Your task to perform on an android device: Open wifi settings Image 0: 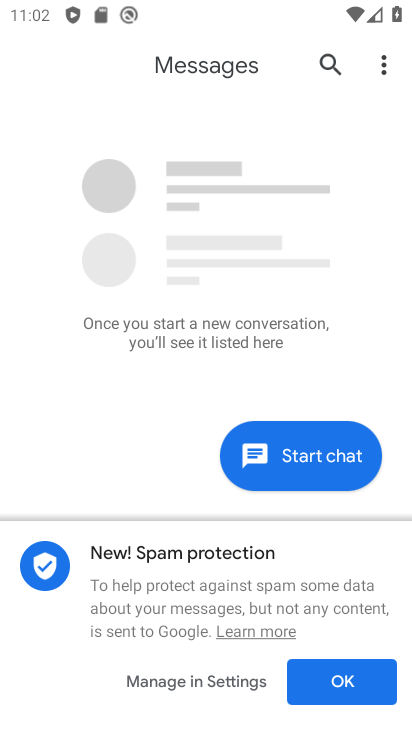
Step 0: press home button
Your task to perform on an android device: Open wifi settings Image 1: 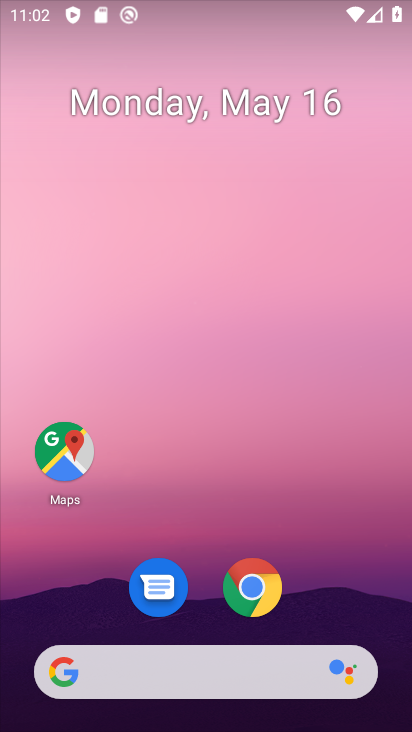
Step 1: drag from (398, 651) to (273, 70)
Your task to perform on an android device: Open wifi settings Image 2: 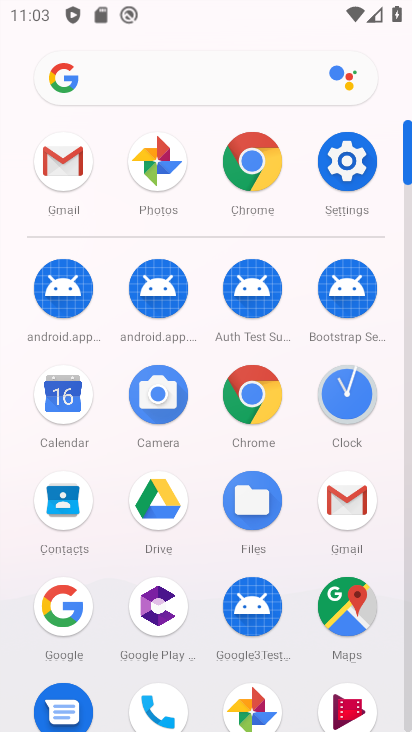
Step 2: click (365, 170)
Your task to perform on an android device: Open wifi settings Image 3: 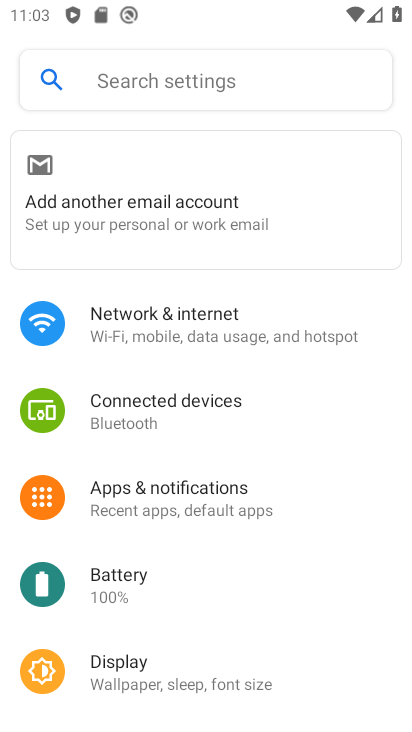
Step 3: click (169, 320)
Your task to perform on an android device: Open wifi settings Image 4: 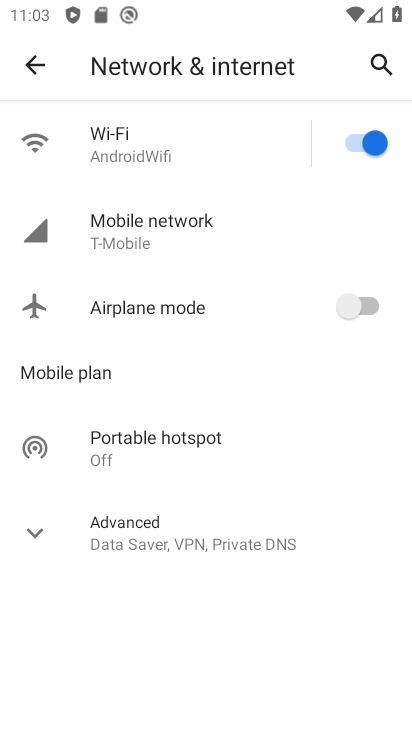
Step 4: click (117, 146)
Your task to perform on an android device: Open wifi settings Image 5: 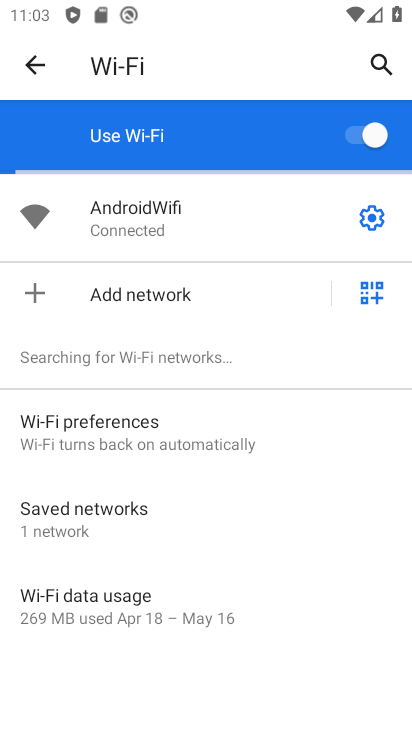
Step 5: task complete